Your task to perform on an android device: empty trash in the gmail app Image 0: 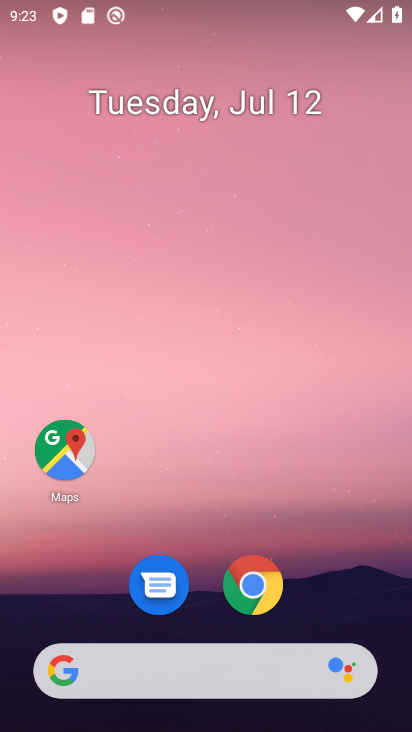
Step 0: drag from (207, 673) to (342, 390)
Your task to perform on an android device: empty trash in the gmail app Image 1: 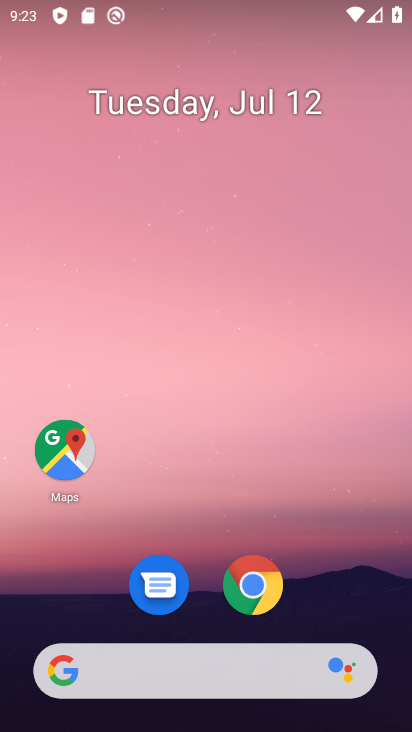
Step 1: drag from (207, 678) to (350, 201)
Your task to perform on an android device: empty trash in the gmail app Image 2: 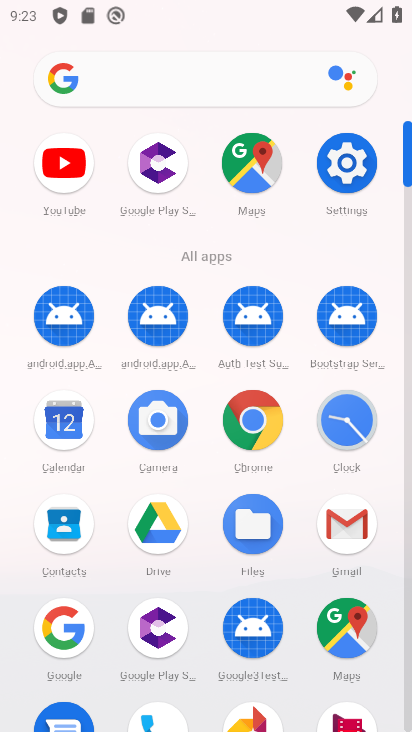
Step 2: click (347, 525)
Your task to perform on an android device: empty trash in the gmail app Image 3: 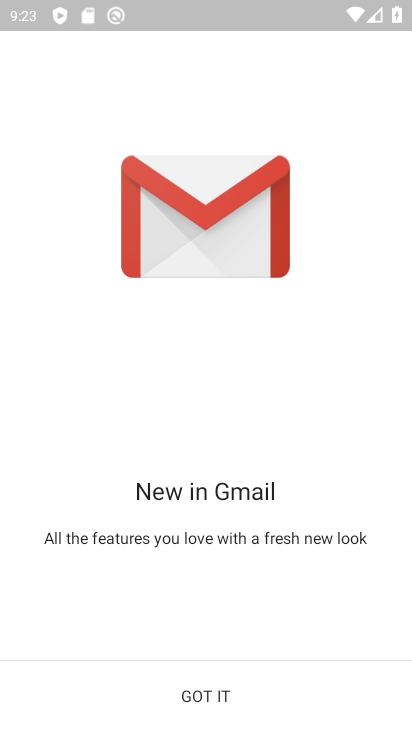
Step 3: click (201, 708)
Your task to perform on an android device: empty trash in the gmail app Image 4: 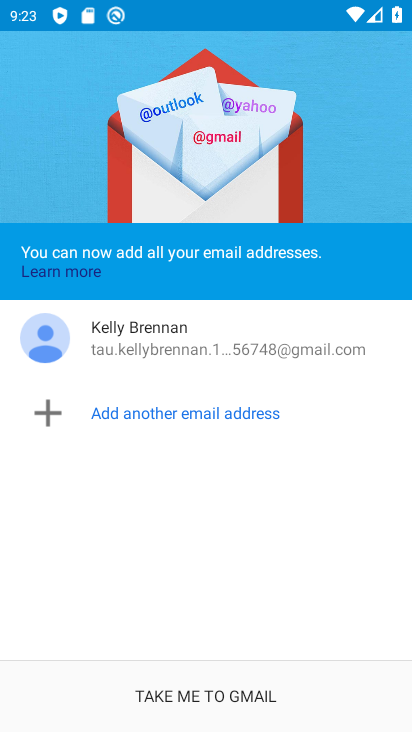
Step 4: click (209, 700)
Your task to perform on an android device: empty trash in the gmail app Image 5: 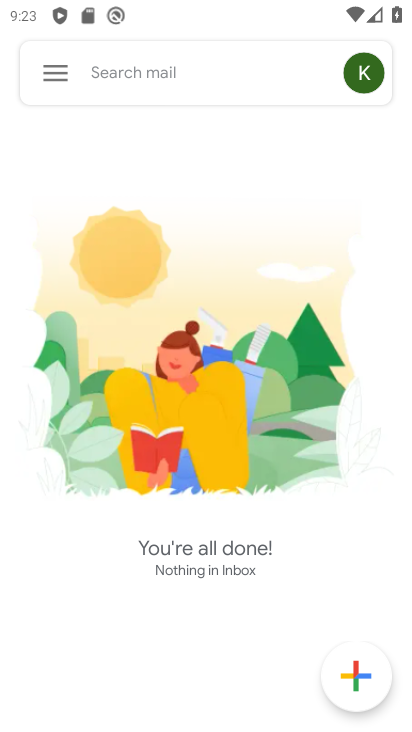
Step 5: click (47, 77)
Your task to perform on an android device: empty trash in the gmail app Image 6: 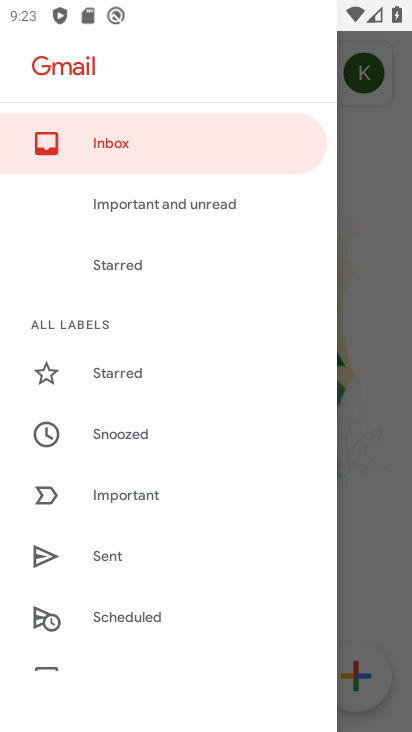
Step 6: drag from (175, 589) to (320, 214)
Your task to perform on an android device: empty trash in the gmail app Image 7: 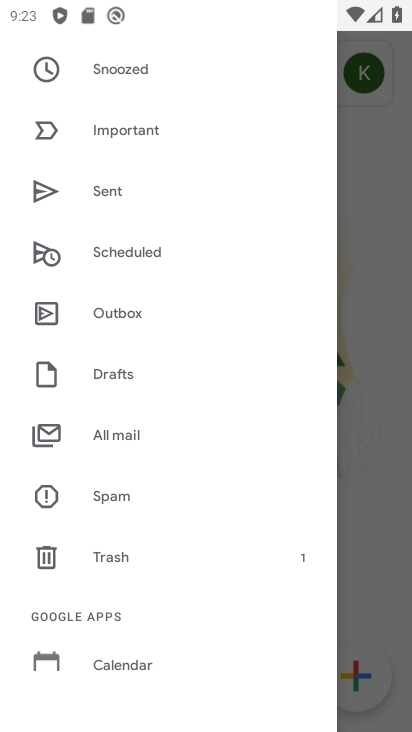
Step 7: click (124, 558)
Your task to perform on an android device: empty trash in the gmail app Image 8: 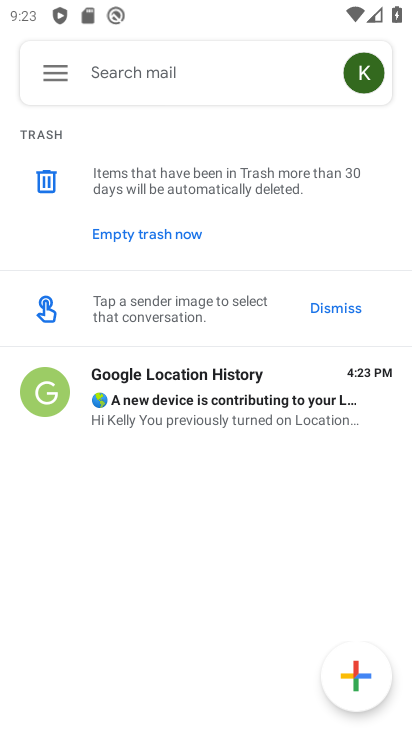
Step 8: click (177, 230)
Your task to perform on an android device: empty trash in the gmail app Image 9: 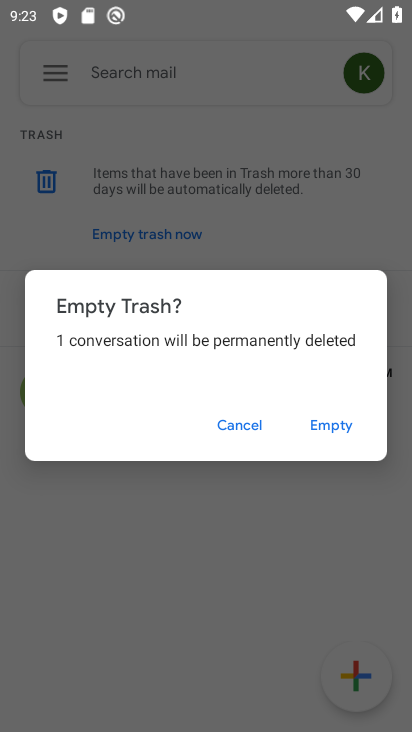
Step 9: click (328, 429)
Your task to perform on an android device: empty trash in the gmail app Image 10: 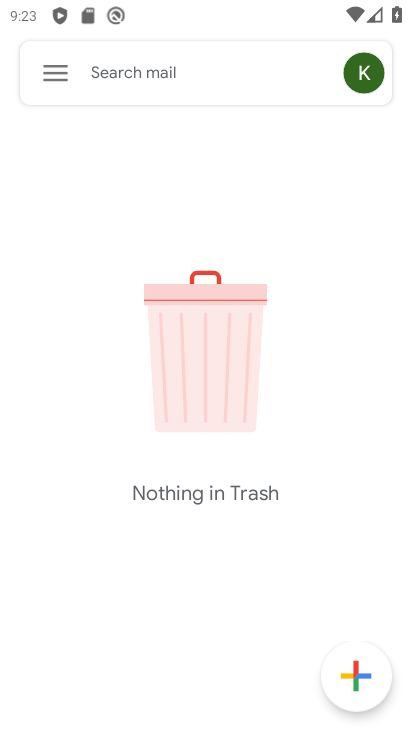
Step 10: task complete